Your task to perform on an android device: turn on airplane mode Image 0: 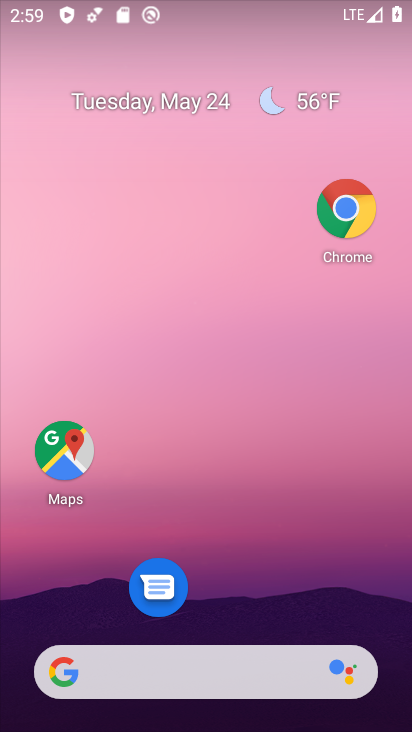
Step 0: drag from (228, 243) to (240, 172)
Your task to perform on an android device: turn on airplane mode Image 1: 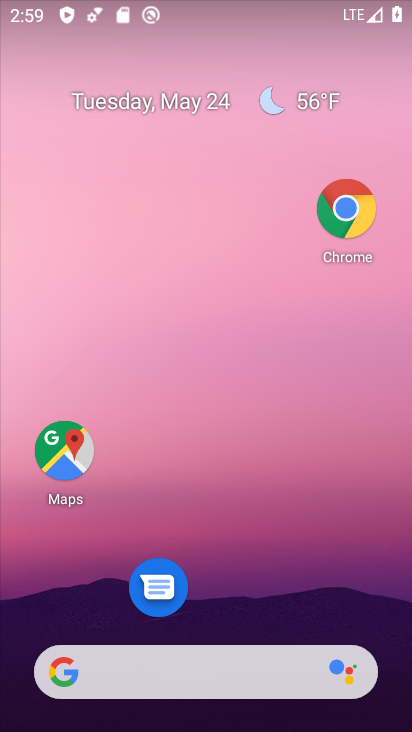
Step 1: drag from (240, 608) to (291, 225)
Your task to perform on an android device: turn on airplane mode Image 2: 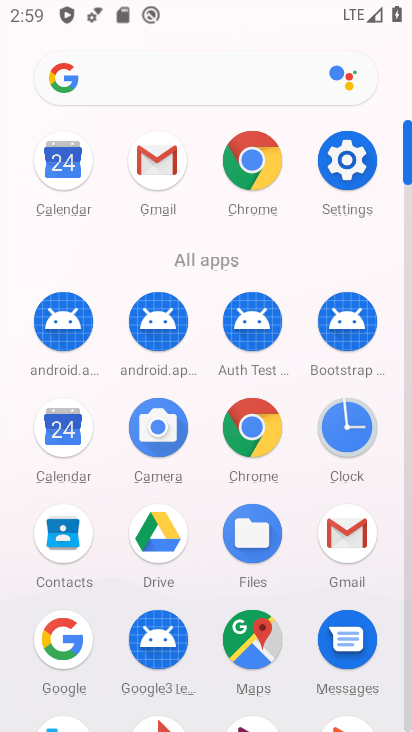
Step 2: click (352, 158)
Your task to perform on an android device: turn on airplane mode Image 3: 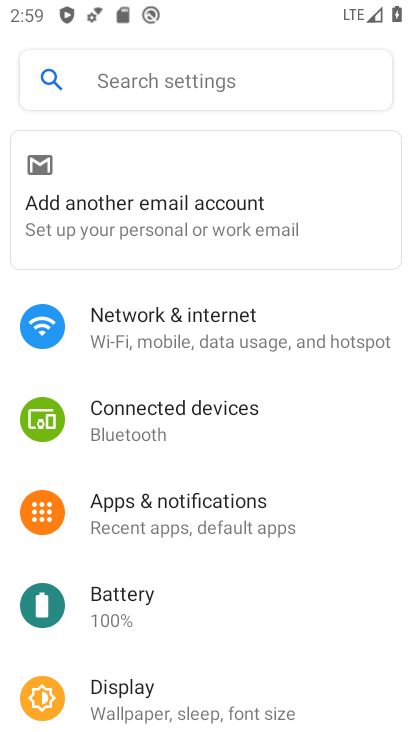
Step 3: click (233, 321)
Your task to perform on an android device: turn on airplane mode Image 4: 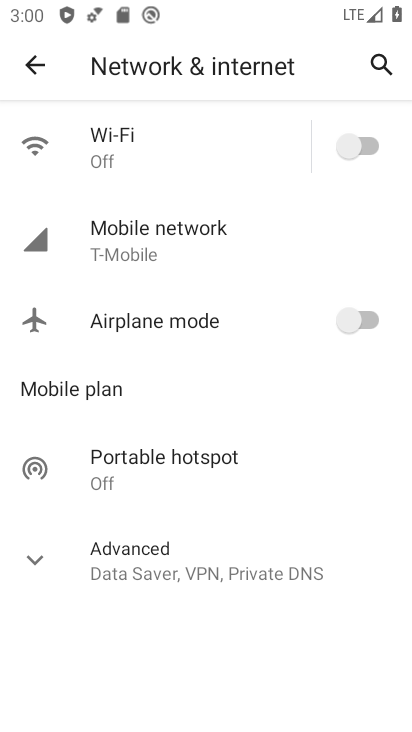
Step 4: click (352, 321)
Your task to perform on an android device: turn on airplane mode Image 5: 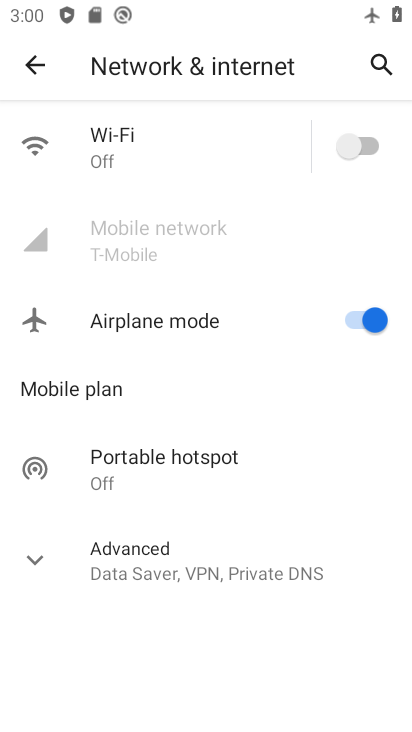
Step 5: task complete